Your task to perform on an android device: Show me the alarms in the clock app Image 0: 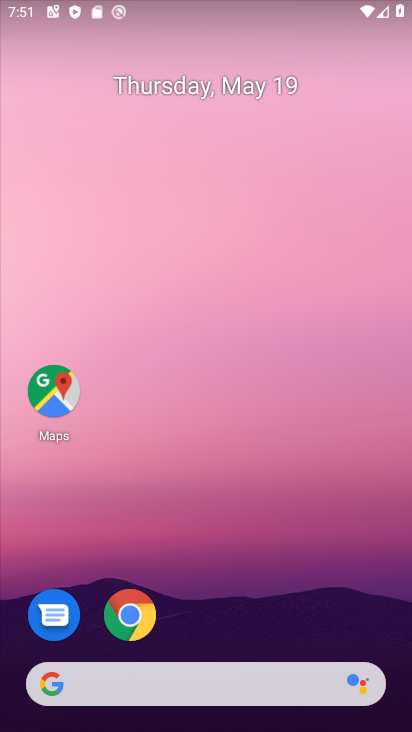
Step 0: drag from (237, 652) to (211, 279)
Your task to perform on an android device: Show me the alarms in the clock app Image 1: 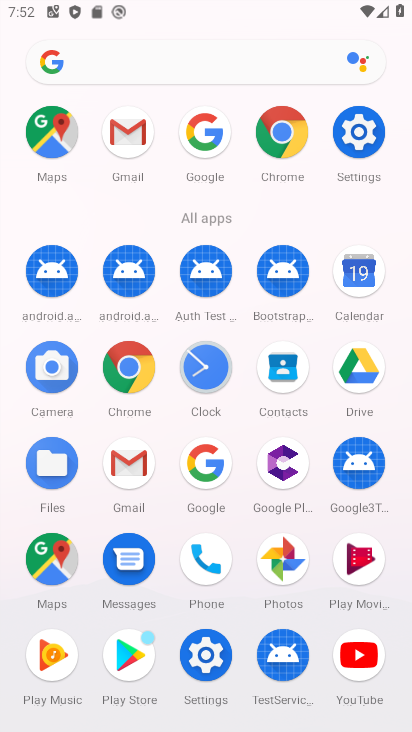
Step 1: click (202, 392)
Your task to perform on an android device: Show me the alarms in the clock app Image 2: 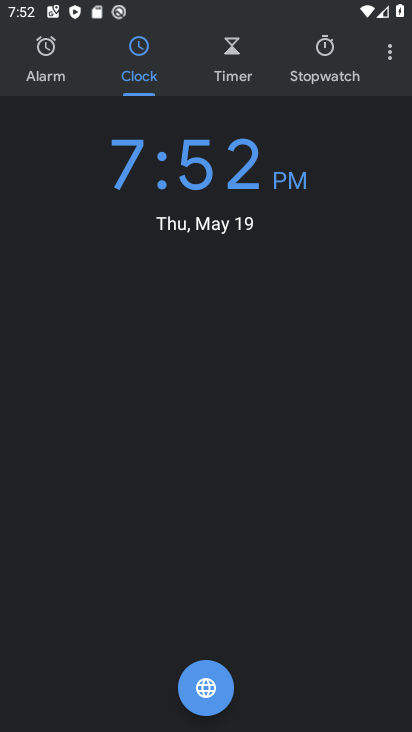
Step 2: click (49, 56)
Your task to perform on an android device: Show me the alarms in the clock app Image 3: 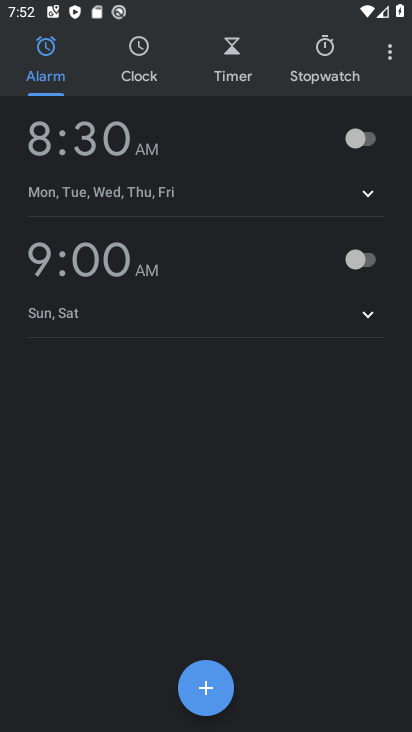
Step 3: task complete